Your task to perform on an android device: Go to CNN.com Image 0: 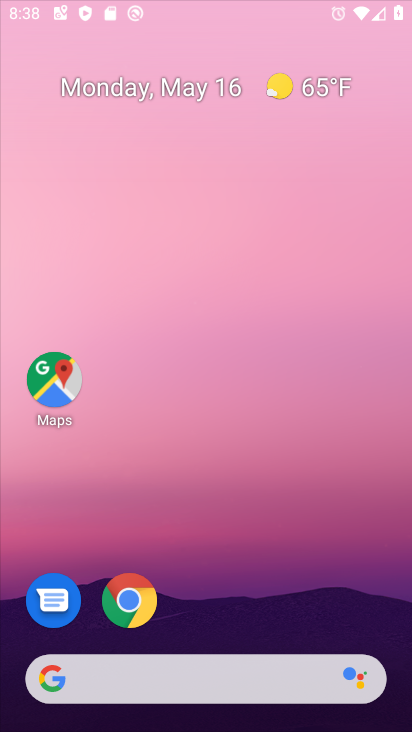
Step 0: click (249, 146)
Your task to perform on an android device: Go to CNN.com Image 1: 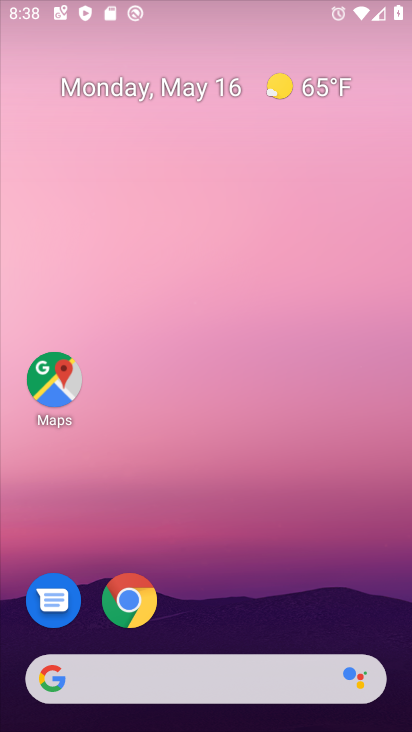
Step 1: drag from (196, 650) to (318, 44)
Your task to perform on an android device: Go to CNN.com Image 2: 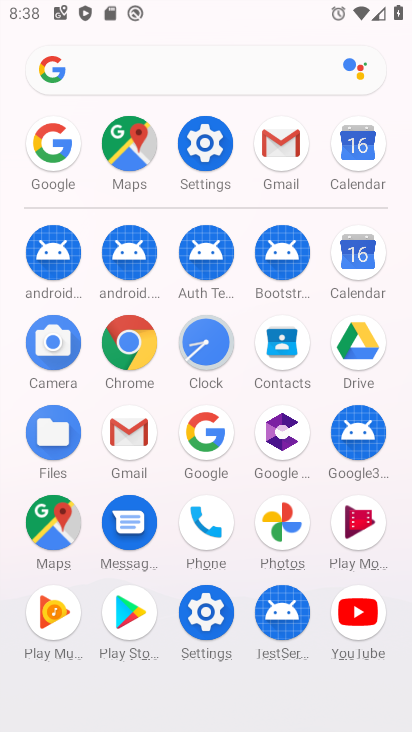
Step 2: click (250, 70)
Your task to perform on an android device: Go to CNN.com Image 3: 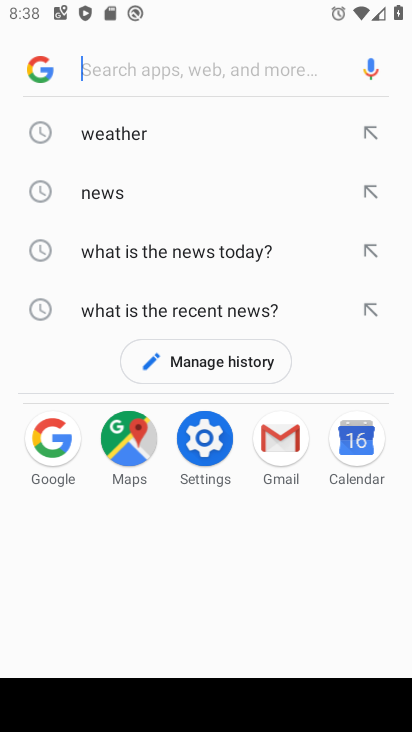
Step 3: type "cnn"
Your task to perform on an android device: Go to CNN.com Image 4: 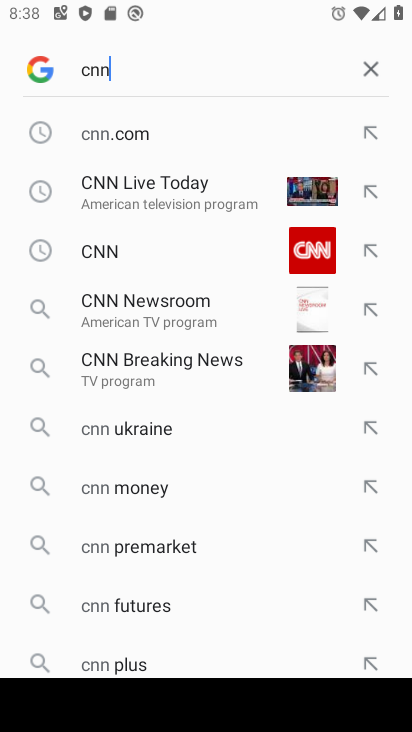
Step 4: click (137, 120)
Your task to perform on an android device: Go to CNN.com Image 5: 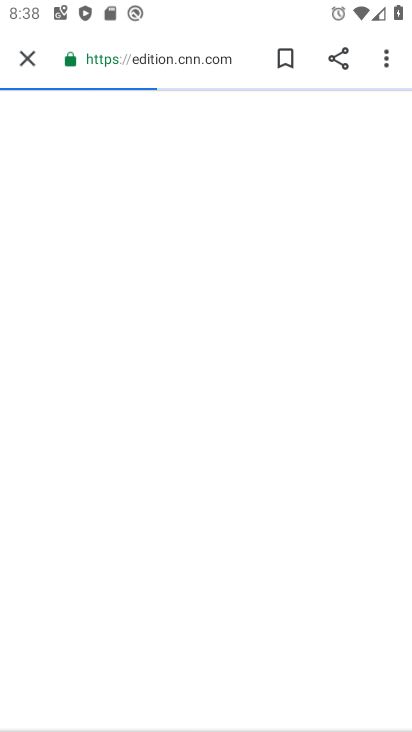
Step 5: task complete